Your task to perform on an android device: change the clock display to show seconds Image 0: 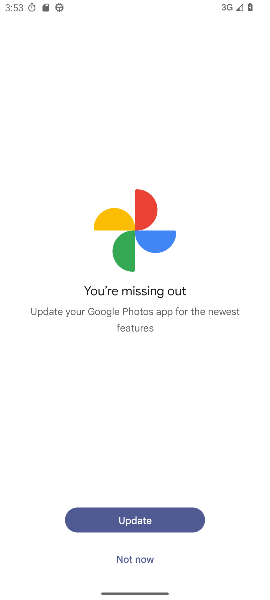
Step 0: press home button
Your task to perform on an android device: change the clock display to show seconds Image 1: 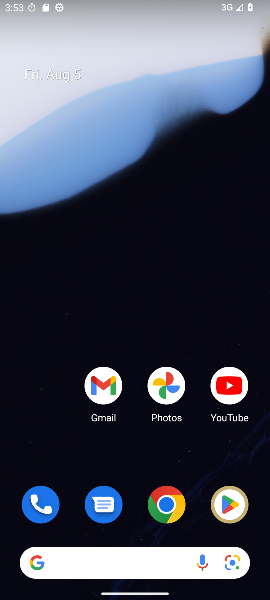
Step 1: drag from (33, 587) to (178, 163)
Your task to perform on an android device: change the clock display to show seconds Image 2: 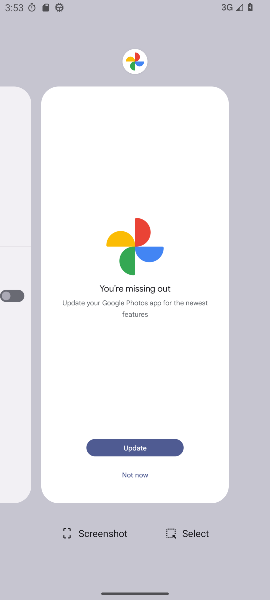
Step 2: press home button
Your task to perform on an android device: change the clock display to show seconds Image 3: 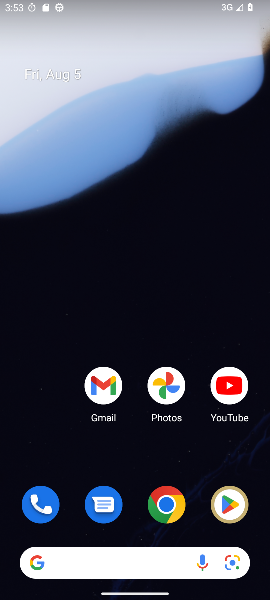
Step 3: drag from (55, 460) to (143, 32)
Your task to perform on an android device: change the clock display to show seconds Image 4: 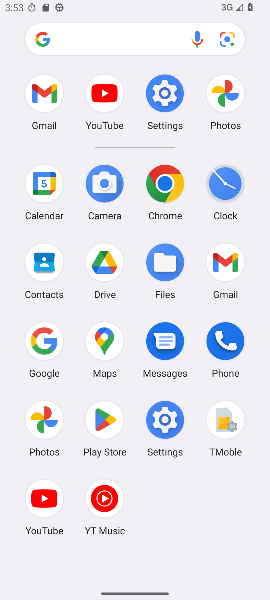
Step 4: click (223, 198)
Your task to perform on an android device: change the clock display to show seconds Image 5: 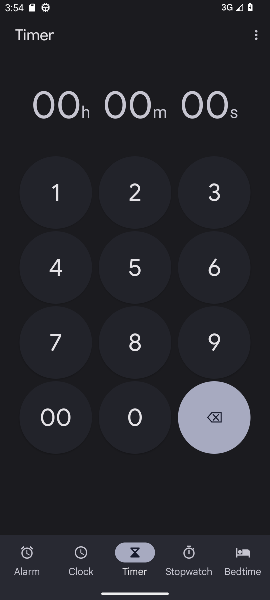
Step 5: click (251, 33)
Your task to perform on an android device: change the clock display to show seconds Image 6: 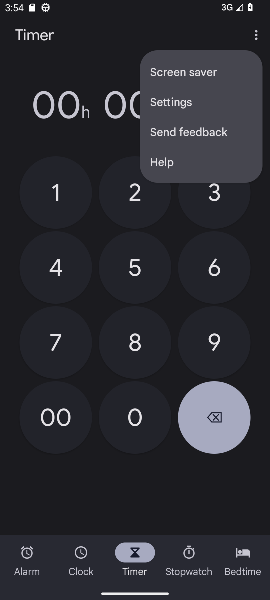
Step 6: click (185, 99)
Your task to perform on an android device: change the clock display to show seconds Image 7: 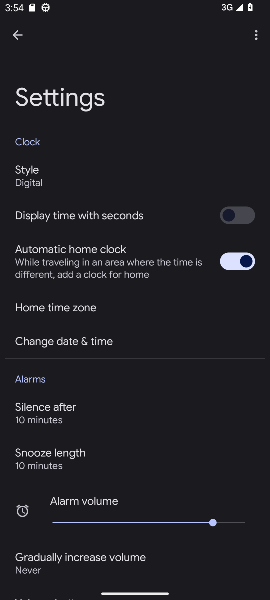
Step 7: click (227, 211)
Your task to perform on an android device: change the clock display to show seconds Image 8: 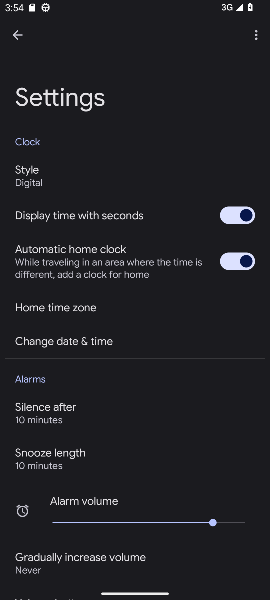
Step 8: task complete